Your task to perform on an android device: Show me popular videos on Youtube Image 0: 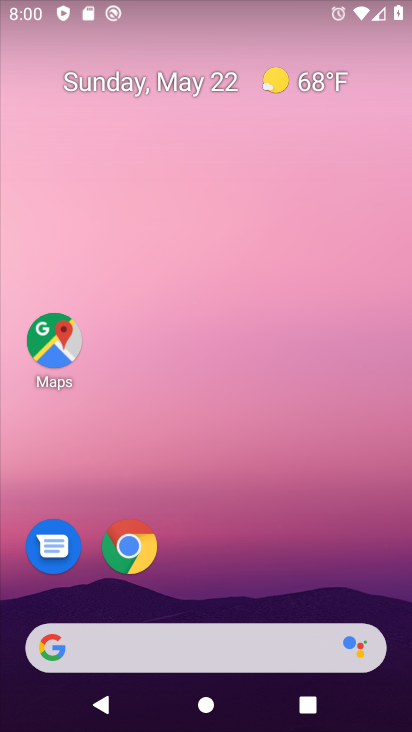
Step 0: drag from (271, 693) to (215, 4)
Your task to perform on an android device: Show me popular videos on Youtube Image 1: 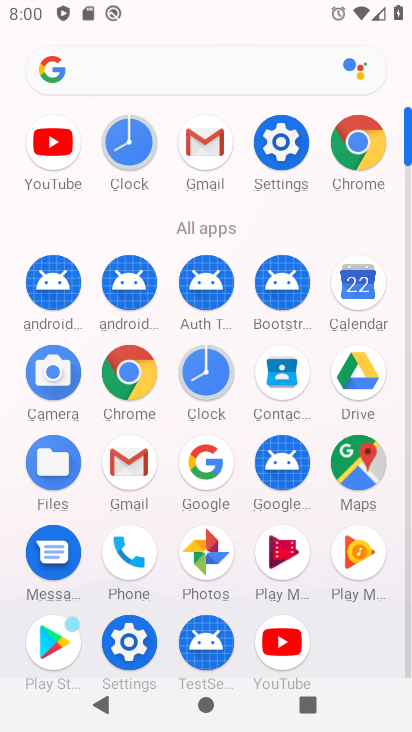
Step 1: click (286, 632)
Your task to perform on an android device: Show me popular videos on Youtube Image 2: 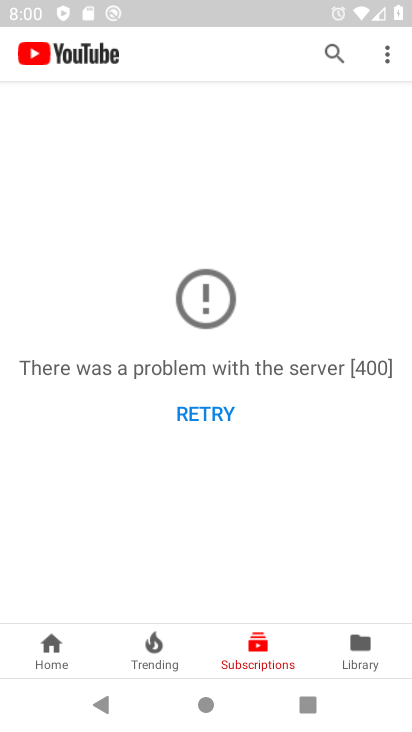
Step 2: click (53, 640)
Your task to perform on an android device: Show me popular videos on Youtube Image 3: 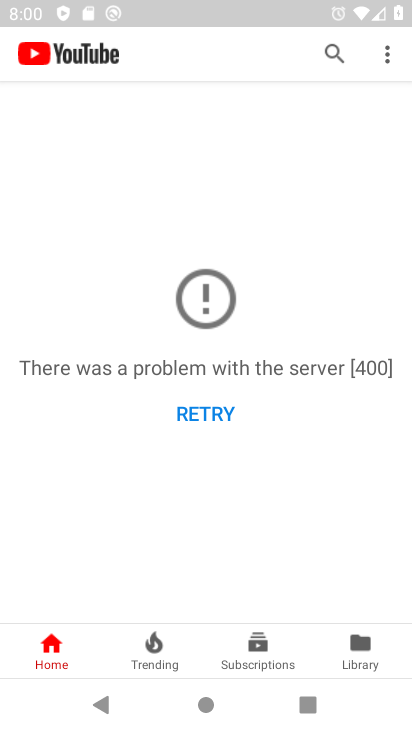
Step 3: click (338, 56)
Your task to perform on an android device: Show me popular videos on Youtube Image 4: 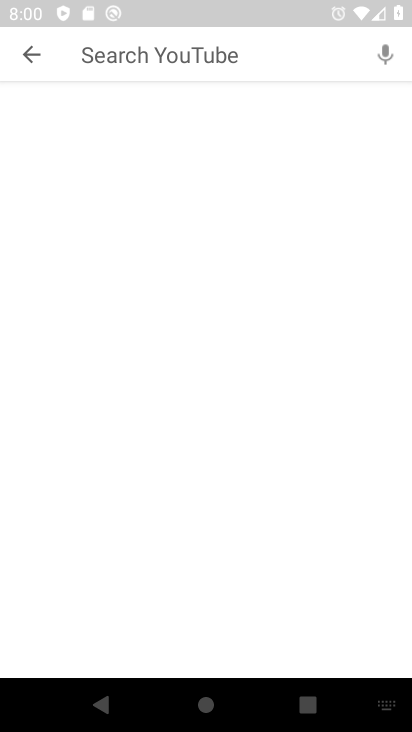
Step 4: type "popular videos"
Your task to perform on an android device: Show me popular videos on Youtube Image 5: 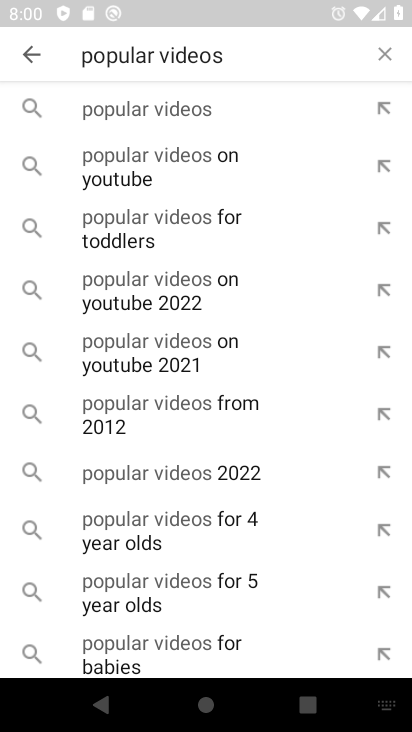
Step 5: click (154, 161)
Your task to perform on an android device: Show me popular videos on Youtube Image 6: 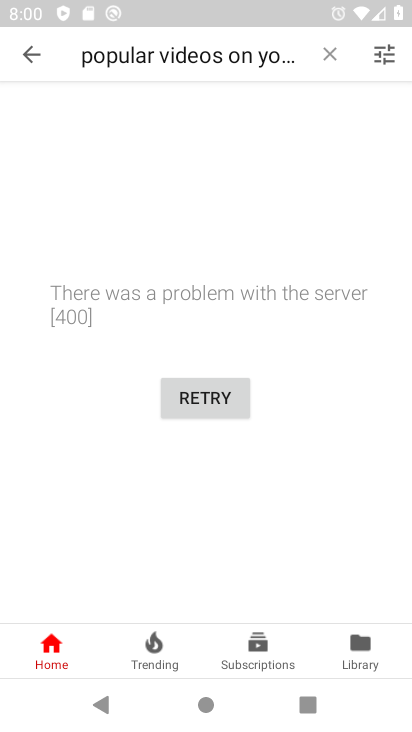
Step 6: task complete